Your task to perform on an android device: toggle pop-ups in chrome Image 0: 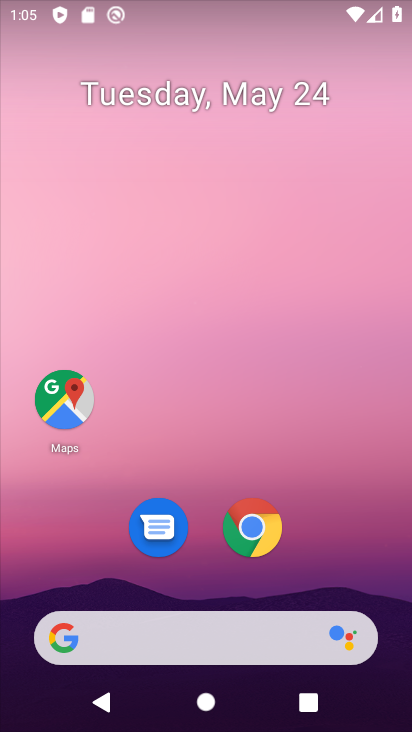
Step 0: drag from (291, 579) to (233, 4)
Your task to perform on an android device: toggle pop-ups in chrome Image 1: 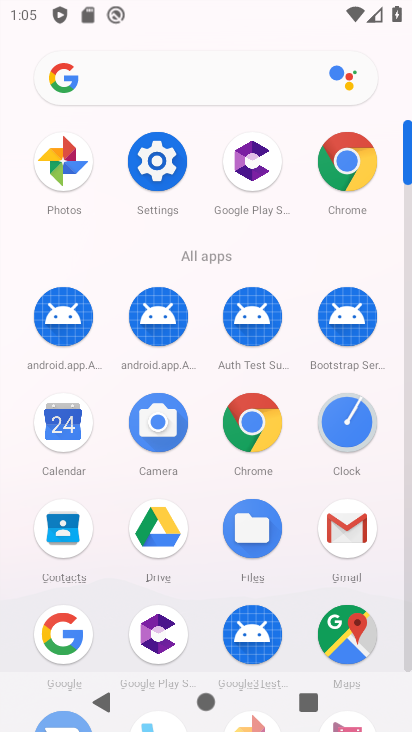
Step 1: click (336, 195)
Your task to perform on an android device: toggle pop-ups in chrome Image 2: 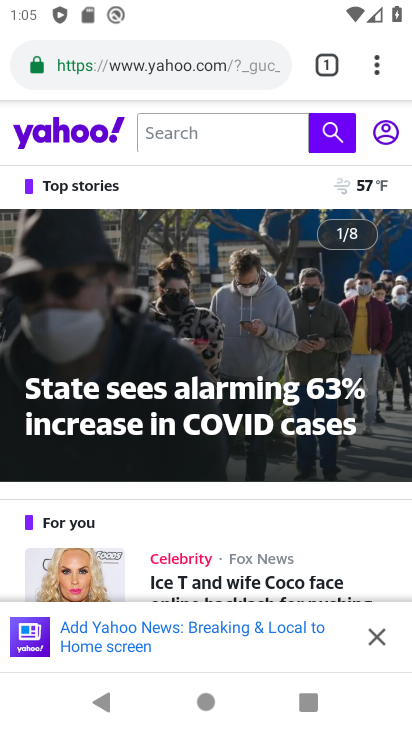
Step 2: click (370, 64)
Your task to perform on an android device: toggle pop-ups in chrome Image 3: 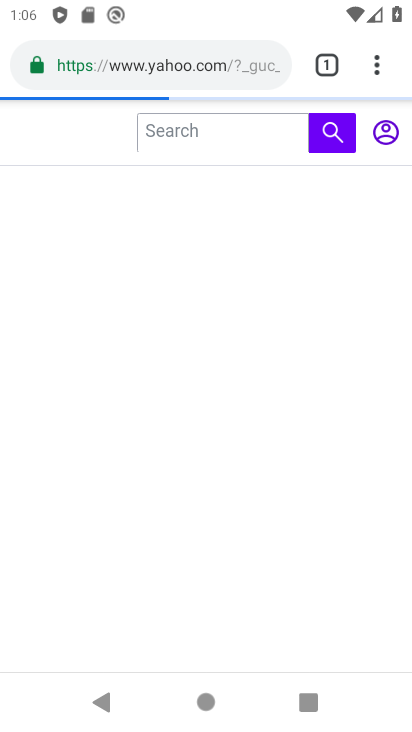
Step 3: click (379, 62)
Your task to perform on an android device: toggle pop-ups in chrome Image 4: 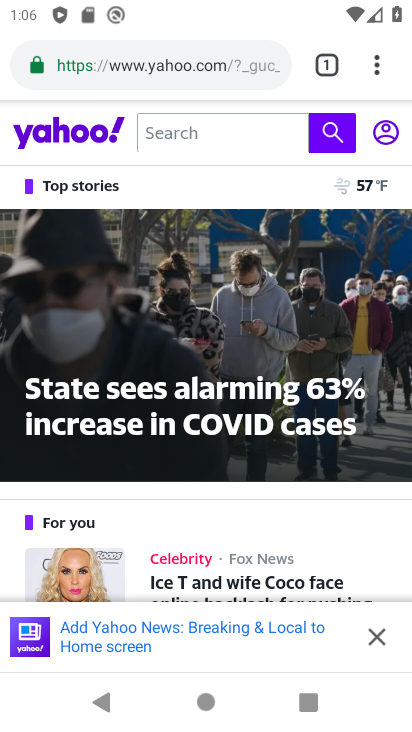
Step 4: click (379, 61)
Your task to perform on an android device: toggle pop-ups in chrome Image 5: 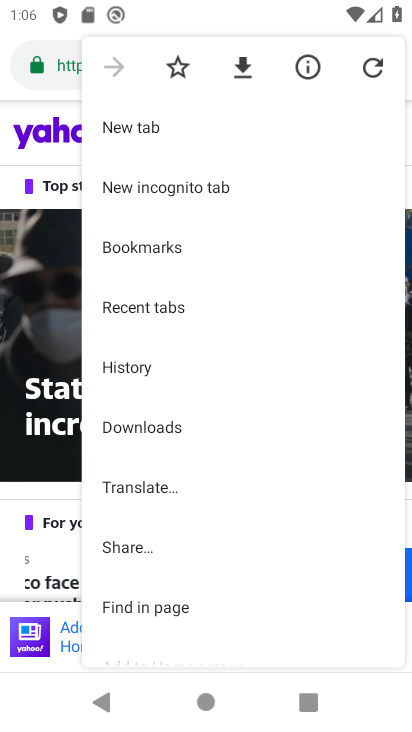
Step 5: drag from (158, 616) to (191, 169)
Your task to perform on an android device: toggle pop-ups in chrome Image 6: 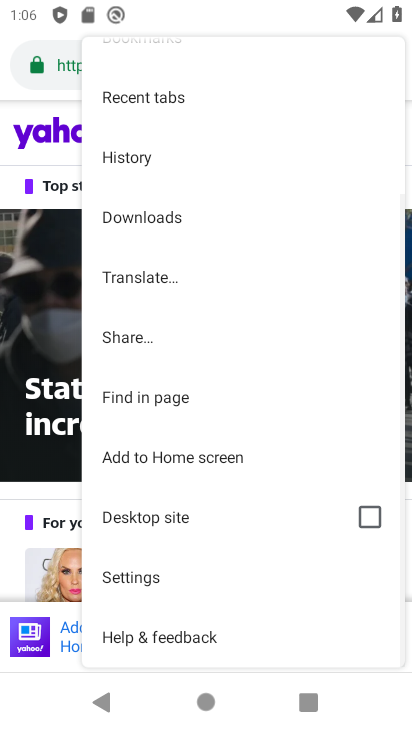
Step 6: click (137, 583)
Your task to perform on an android device: toggle pop-ups in chrome Image 7: 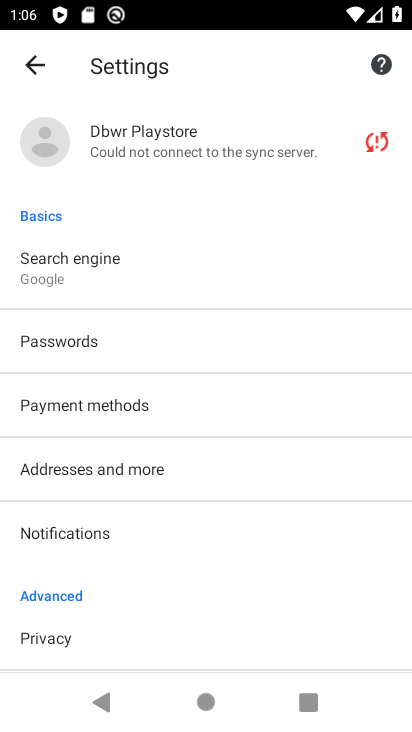
Step 7: drag from (117, 598) to (162, 260)
Your task to perform on an android device: toggle pop-ups in chrome Image 8: 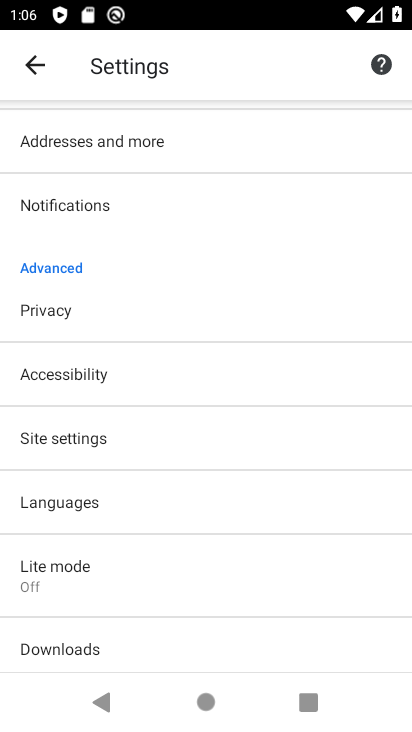
Step 8: click (80, 438)
Your task to perform on an android device: toggle pop-ups in chrome Image 9: 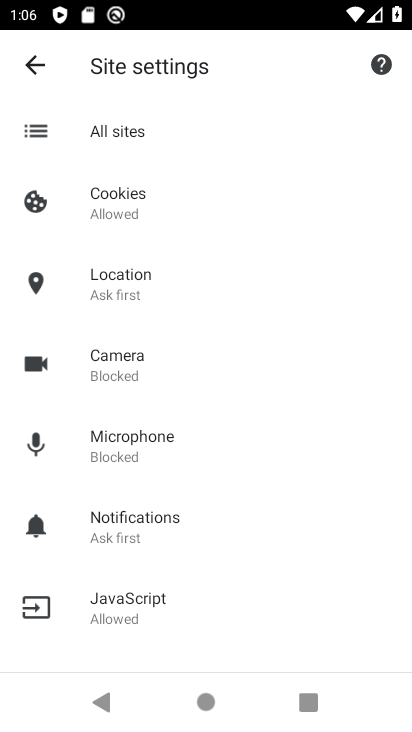
Step 9: drag from (148, 648) to (180, 259)
Your task to perform on an android device: toggle pop-ups in chrome Image 10: 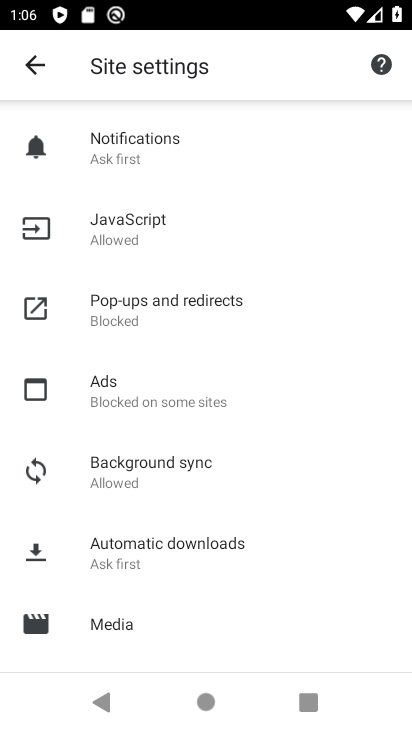
Step 10: click (144, 297)
Your task to perform on an android device: toggle pop-ups in chrome Image 11: 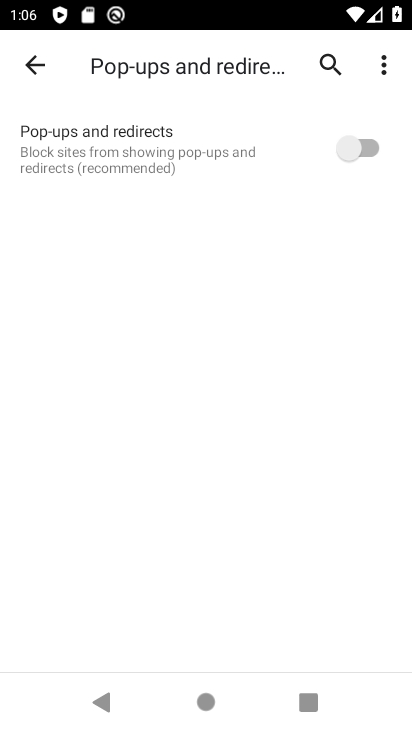
Step 11: click (372, 146)
Your task to perform on an android device: toggle pop-ups in chrome Image 12: 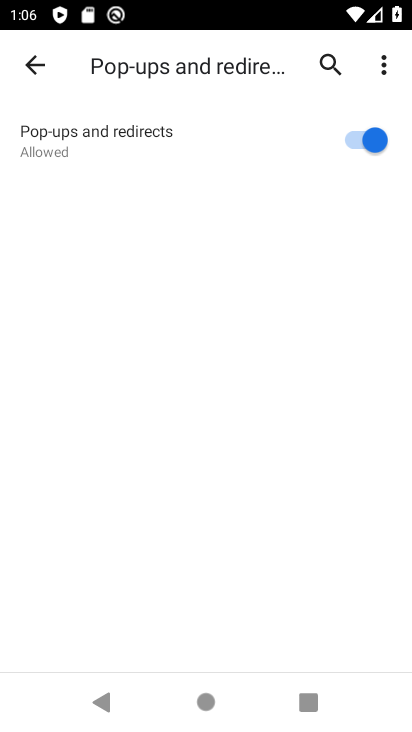
Step 12: task complete